Your task to perform on an android device: Open ESPN.com Image 0: 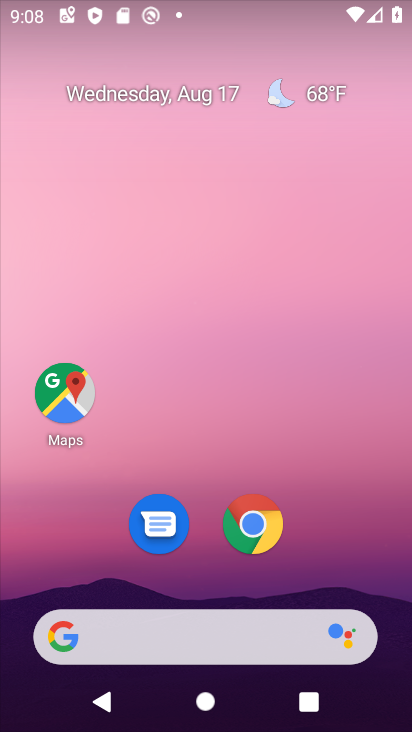
Step 0: click (278, 646)
Your task to perform on an android device: Open ESPN.com Image 1: 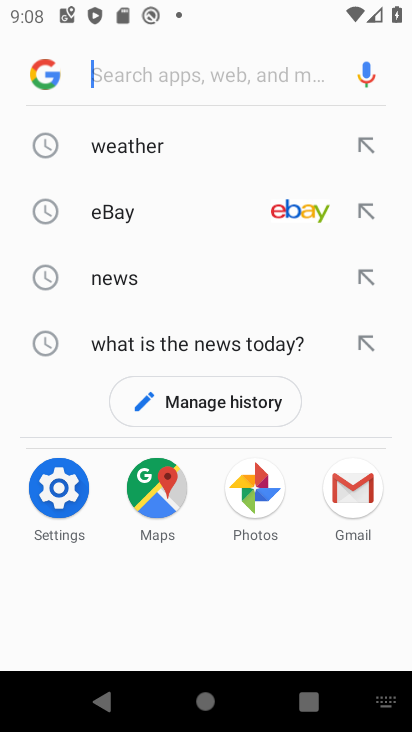
Step 1: type "espn.com"
Your task to perform on an android device: Open ESPN.com Image 2: 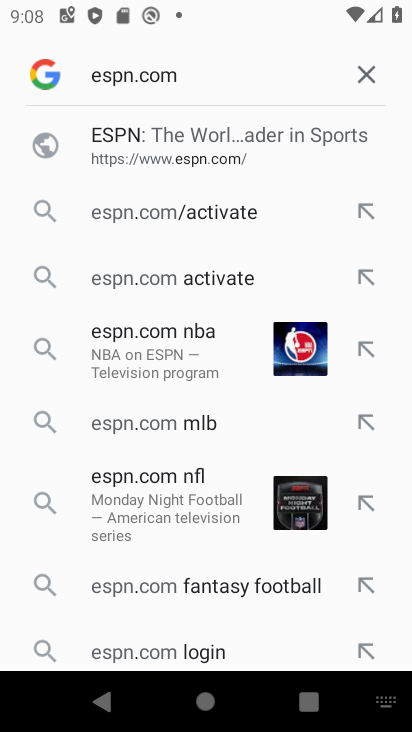
Step 2: click (232, 154)
Your task to perform on an android device: Open ESPN.com Image 3: 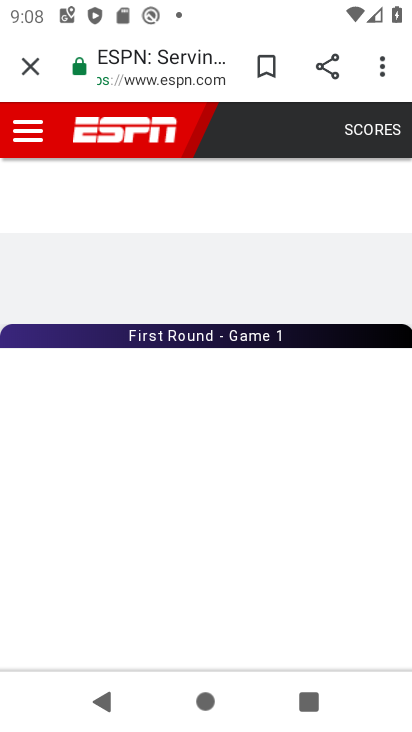
Step 3: task complete